Your task to perform on an android device: change text size in settings app Image 0: 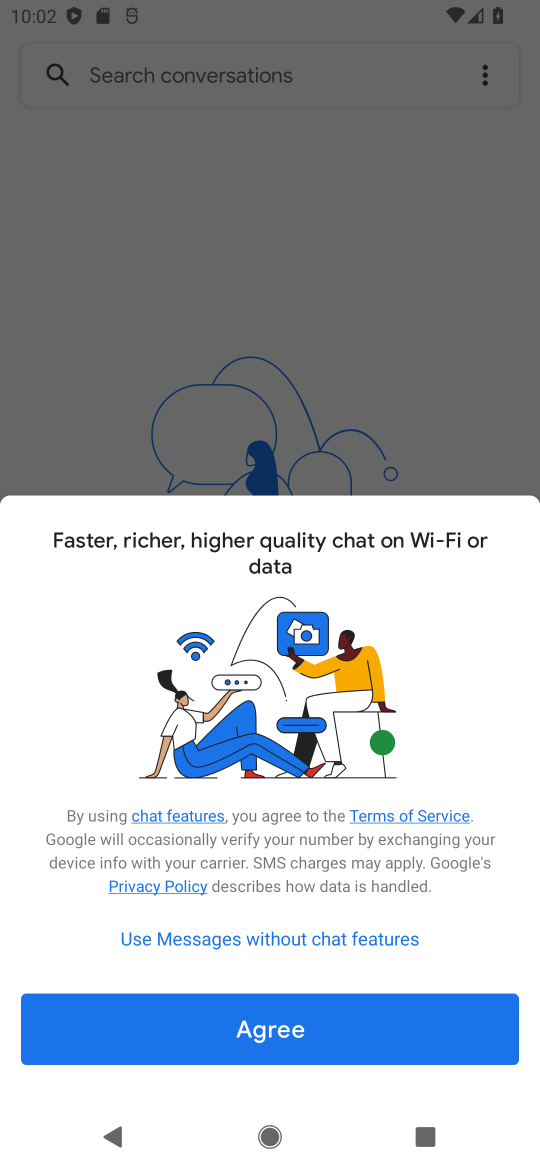
Step 0: task complete